Your task to perform on an android device: check battery use Image 0: 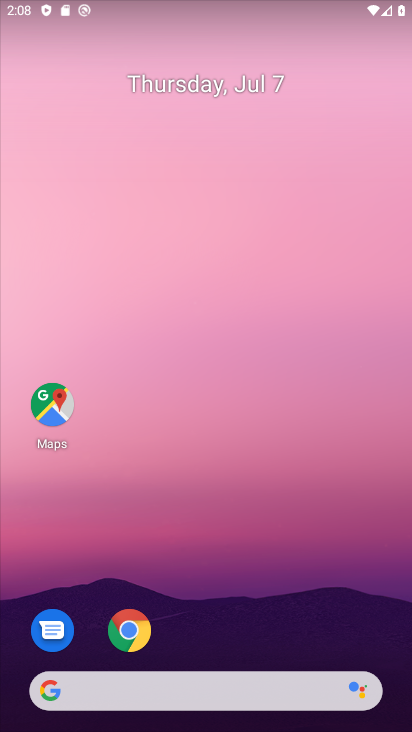
Step 0: press home button
Your task to perform on an android device: check battery use Image 1: 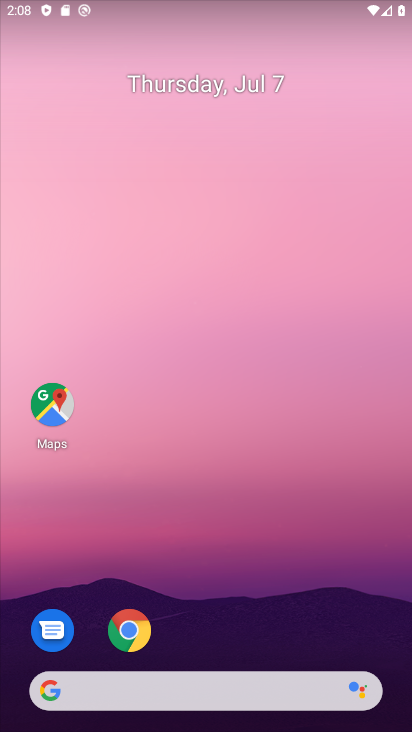
Step 1: drag from (160, 649) to (205, 249)
Your task to perform on an android device: check battery use Image 2: 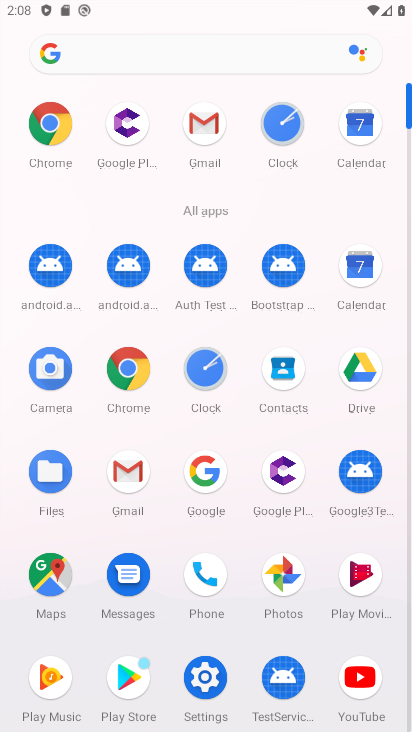
Step 2: click (207, 679)
Your task to perform on an android device: check battery use Image 3: 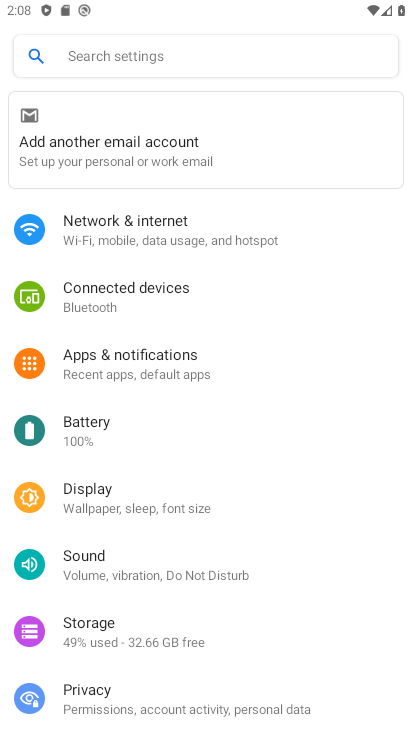
Step 3: click (94, 432)
Your task to perform on an android device: check battery use Image 4: 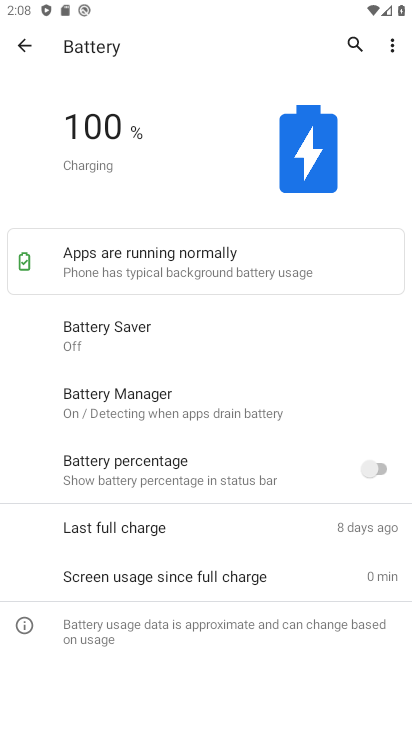
Step 4: task complete